Your task to perform on an android device: stop showing notifications on the lock screen Image 0: 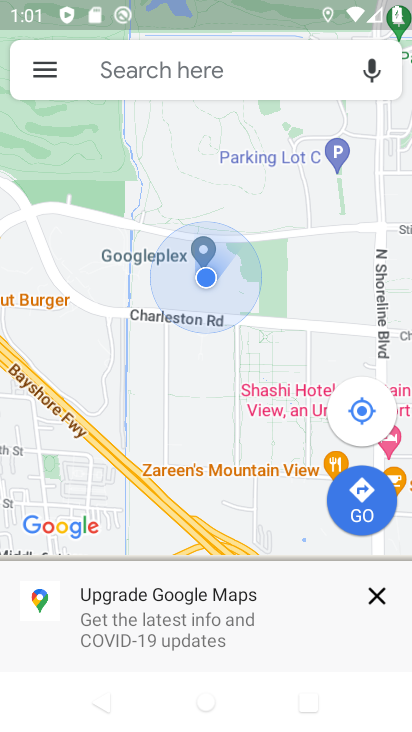
Step 0: press home button
Your task to perform on an android device: stop showing notifications on the lock screen Image 1: 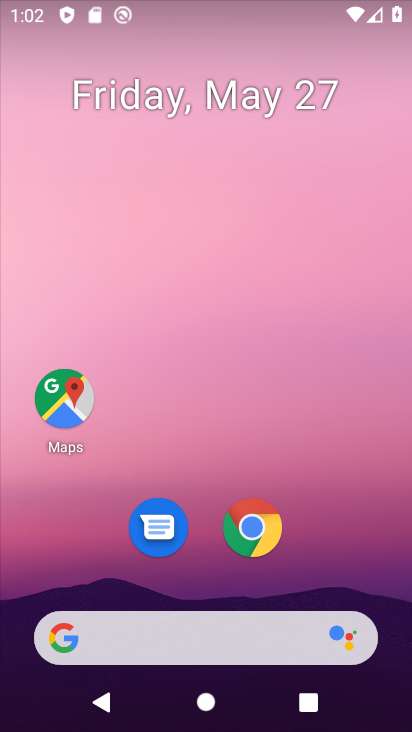
Step 1: drag from (351, 575) to (369, 162)
Your task to perform on an android device: stop showing notifications on the lock screen Image 2: 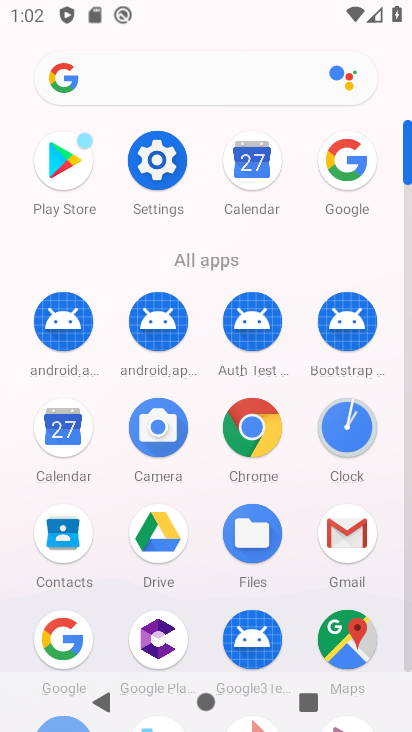
Step 2: click (169, 132)
Your task to perform on an android device: stop showing notifications on the lock screen Image 3: 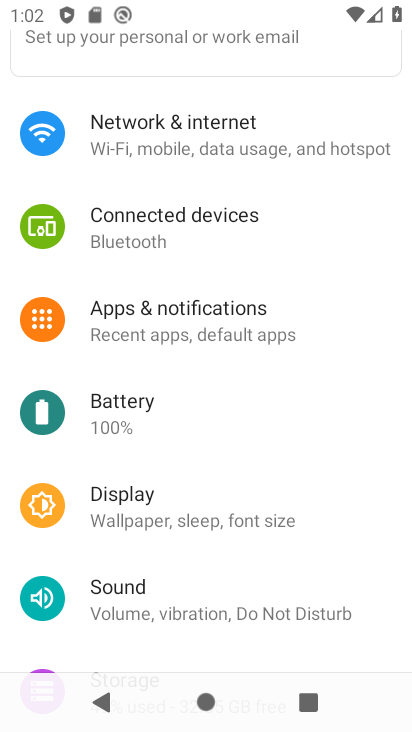
Step 3: click (232, 332)
Your task to perform on an android device: stop showing notifications on the lock screen Image 4: 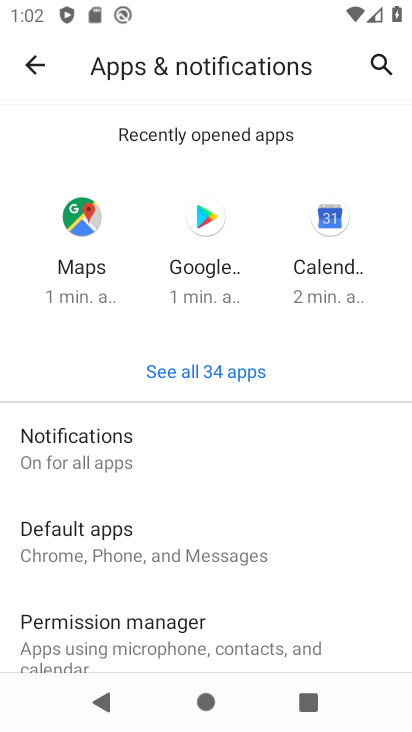
Step 4: click (234, 448)
Your task to perform on an android device: stop showing notifications on the lock screen Image 5: 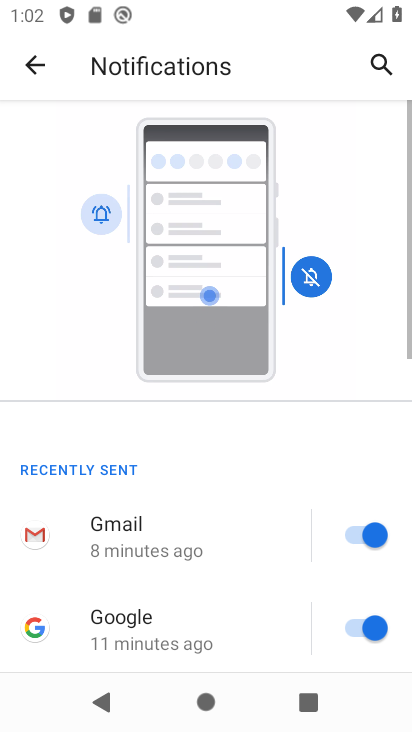
Step 5: drag from (244, 619) to (268, 240)
Your task to perform on an android device: stop showing notifications on the lock screen Image 6: 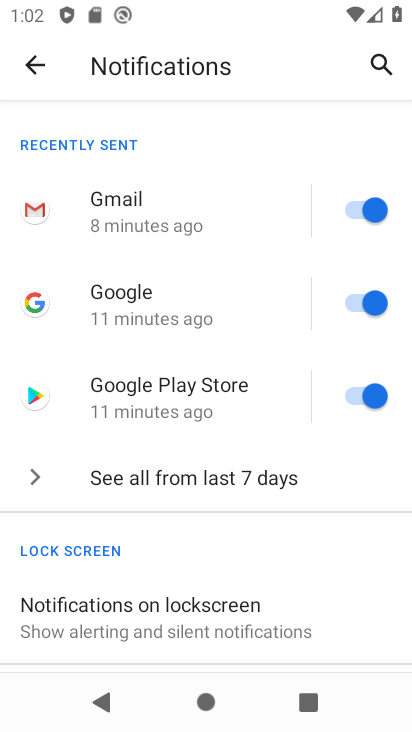
Step 6: click (265, 612)
Your task to perform on an android device: stop showing notifications on the lock screen Image 7: 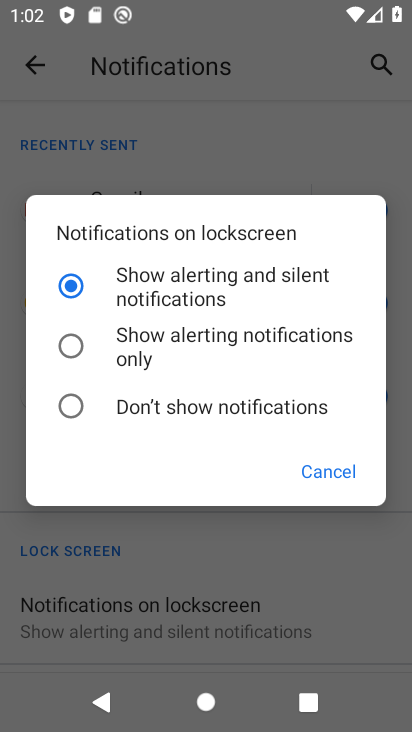
Step 7: click (234, 403)
Your task to perform on an android device: stop showing notifications on the lock screen Image 8: 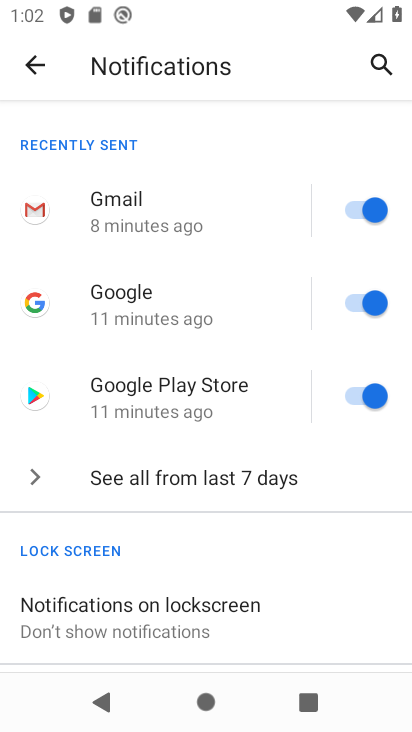
Step 8: task complete